Your task to perform on an android device: turn on notifications settings in the gmail app Image 0: 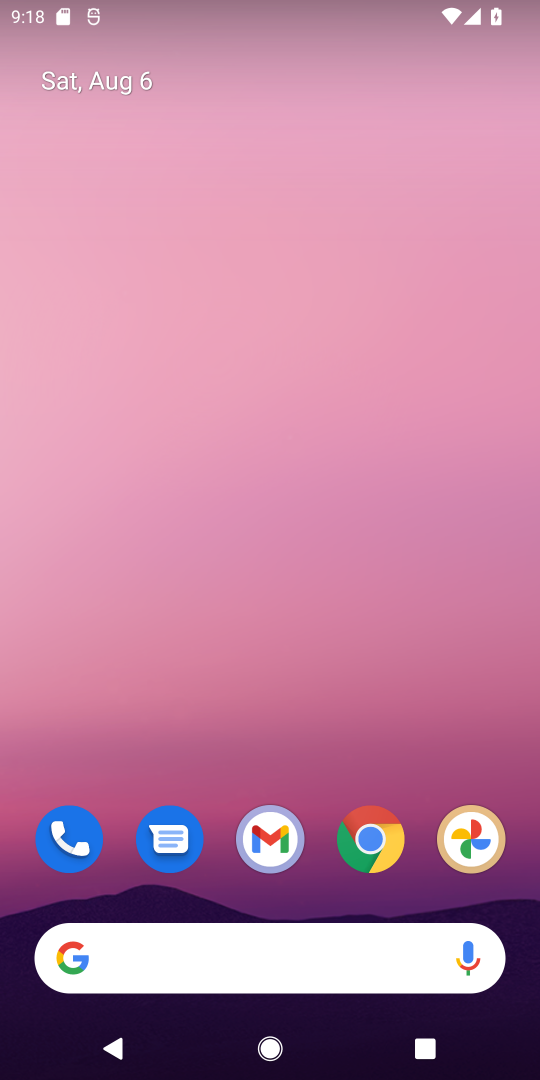
Step 0: drag from (321, 894) to (373, 218)
Your task to perform on an android device: turn on notifications settings in the gmail app Image 1: 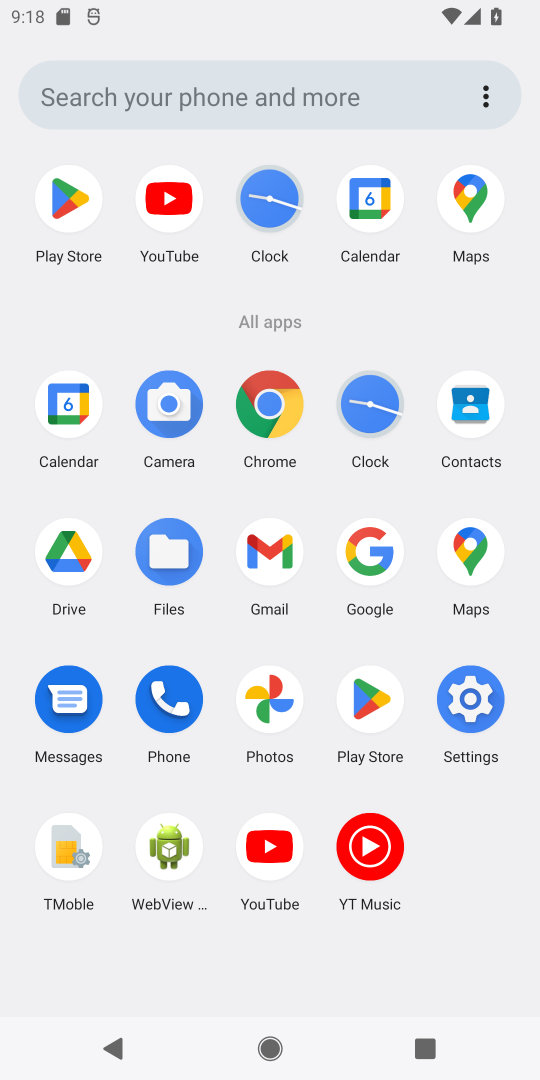
Step 1: click (263, 543)
Your task to perform on an android device: turn on notifications settings in the gmail app Image 2: 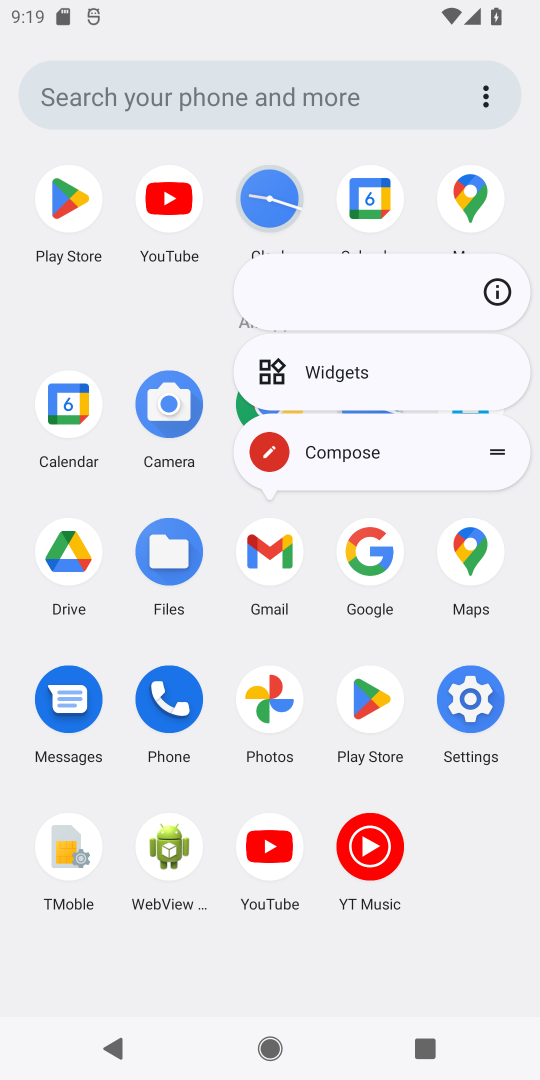
Step 2: click (269, 534)
Your task to perform on an android device: turn on notifications settings in the gmail app Image 3: 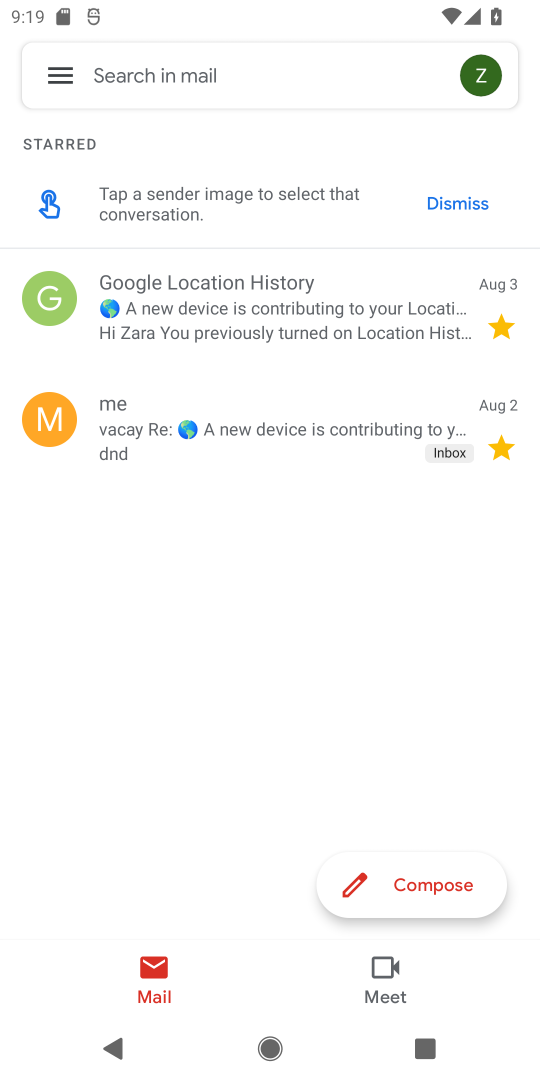
Step 3: click (57, 75)
Your task to perform on an android device: turn on notifications settings in the gmail app Image 4: 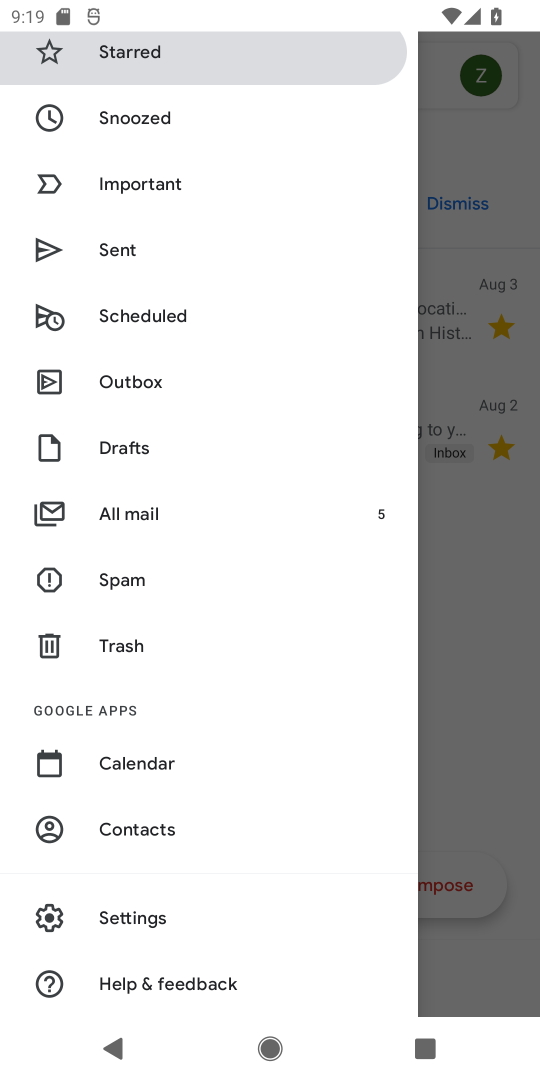
Step 4: click (170, 913)
Your task to perform on an android device: turn on notifications settings in the gmail app Image 5: 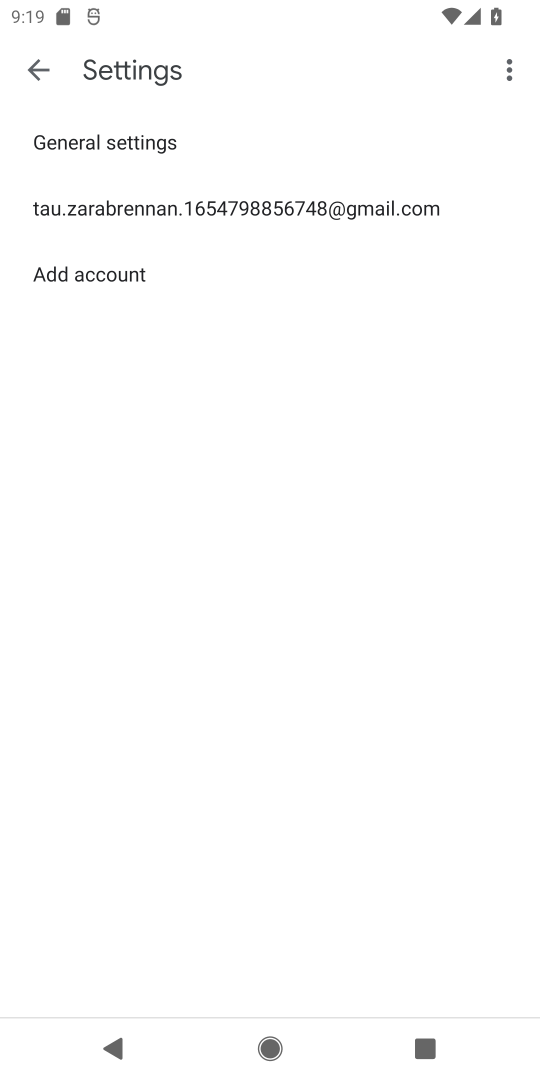
Step 5: click (135, 147)
Your task to perform on an android device: turn on notifications settings in the gmail app Image 6: 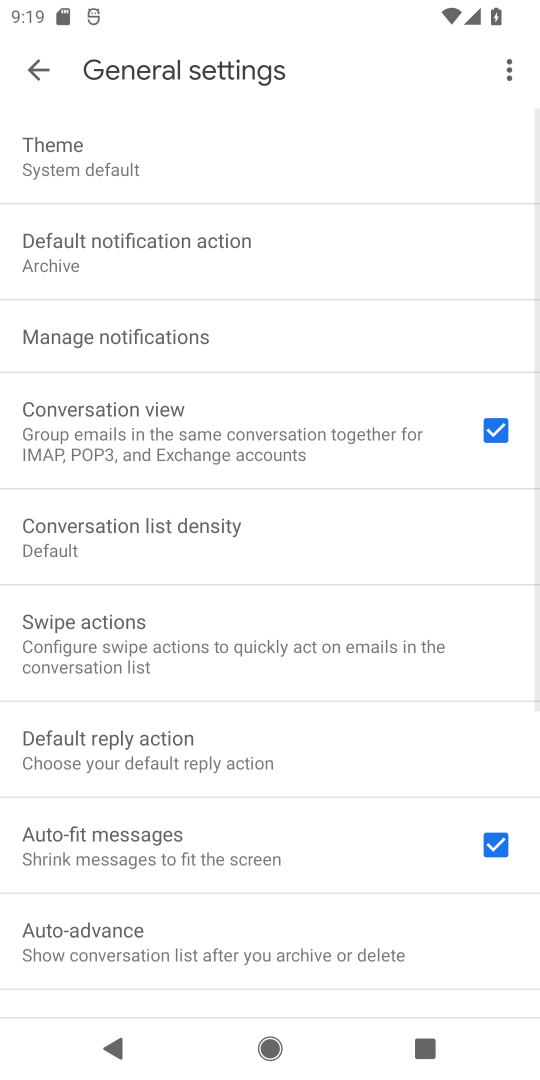
Step 6: click (137, 325)
Your task to perform on an android device: turn on notifications settings in the gmail app Image 7: 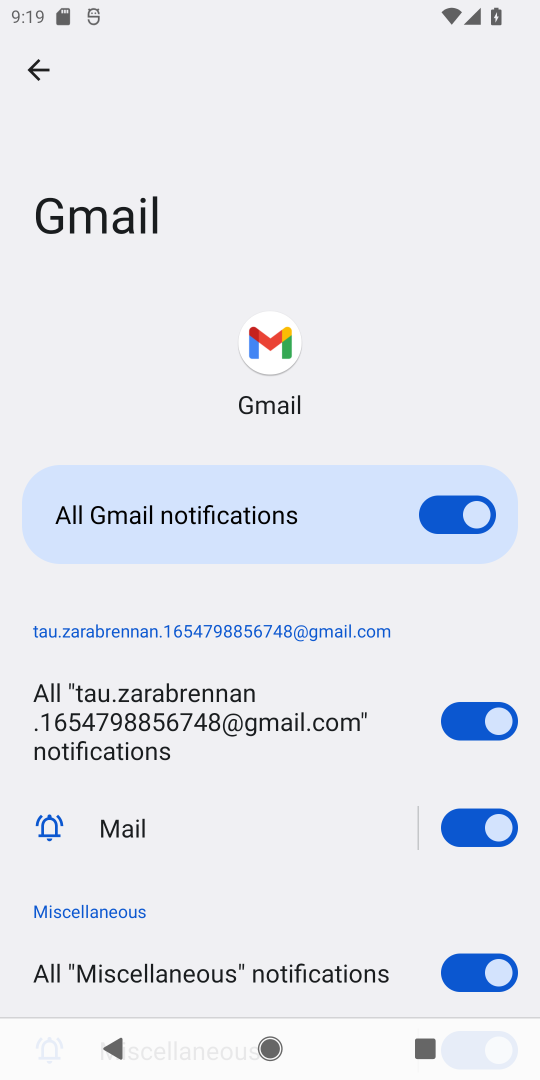
Step 7: task complete